Your task to perform on an android device: turn on improve location accuracy Image 0: 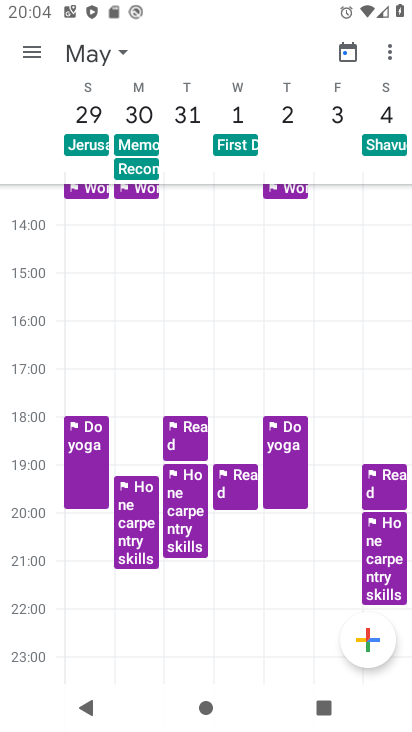
Step 0: press home button
Your task to perform on an android device: turn on improve location accuracy Image 1: 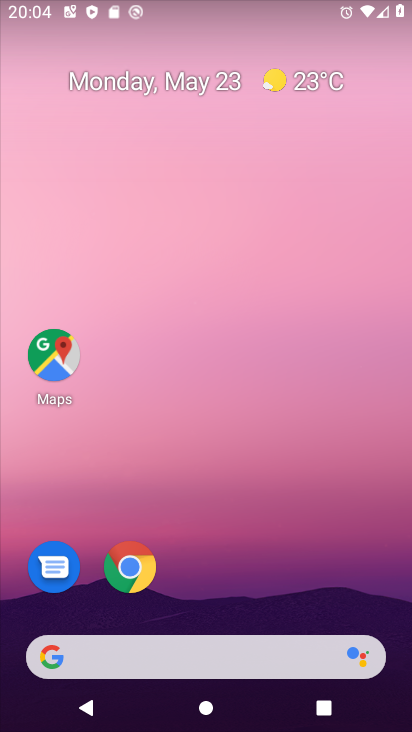
Step 1: drag from (270, 583) to (286, 261)
Your task to perform on an android device: turn on improve location accuracy Image 2: 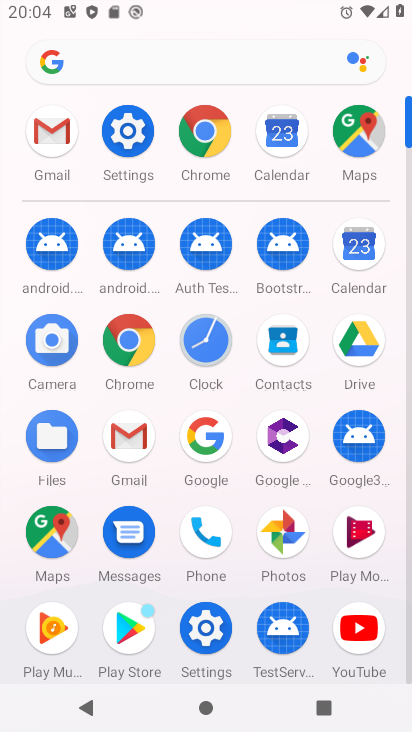
Step 2: click (127, 137)
Your task to perform on an android device: turn on improve location accuracy Image 3: 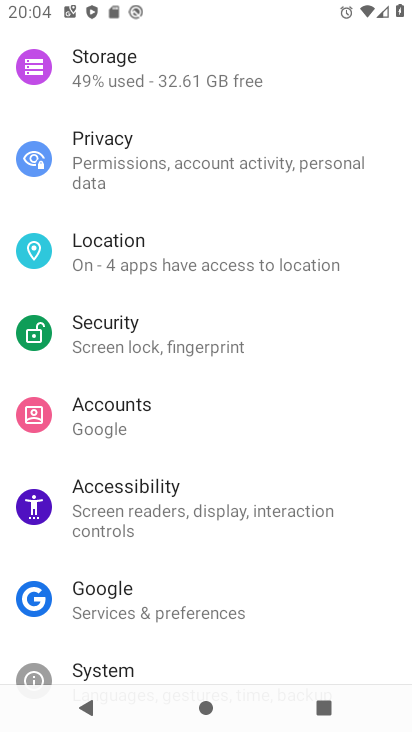
Step 3: drag from (190, 608) to (210, 490)
Your task to perform on an android device: turn on improve location accuracy Image 4: 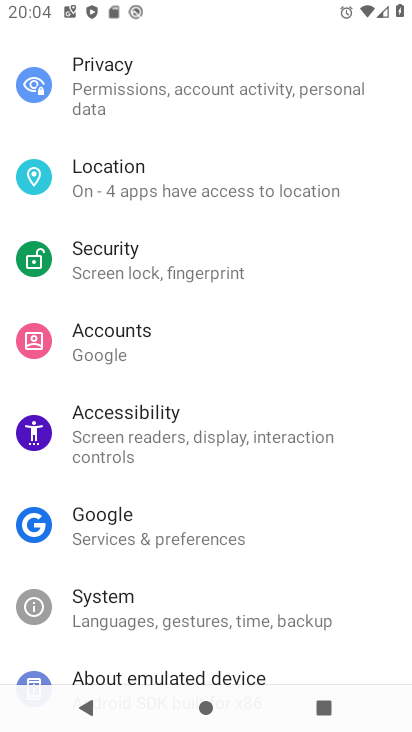
Step 4: click (181, 191)
Your task to perform on an android device: turn on improve location accuracy Image 5: 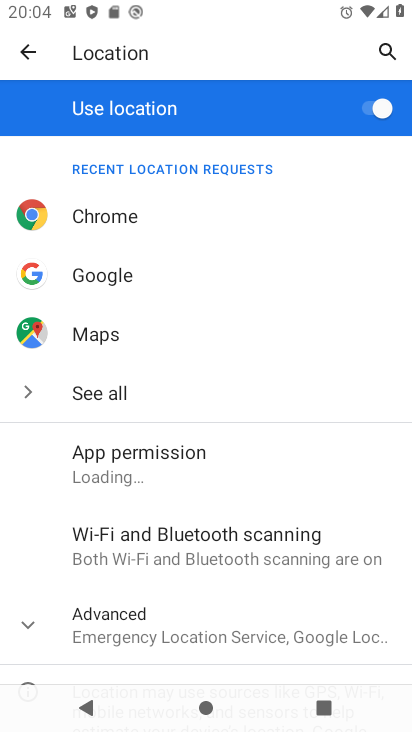
Step 5: click (167, 629)
Your task to perform on an android device: turn on improve location accuracy Image 6: 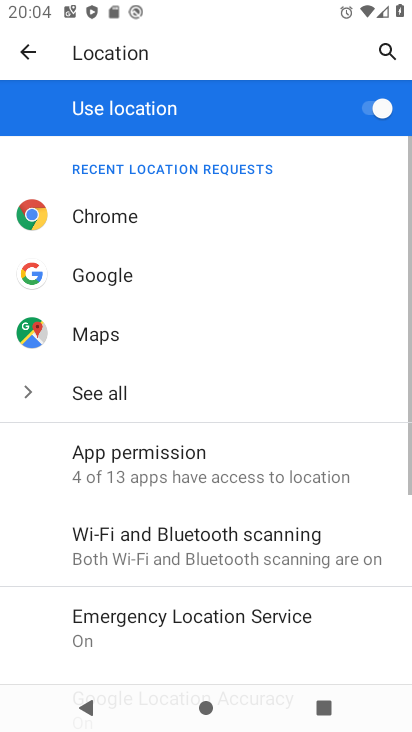
Step 6: drag from (183, 552) to (240, 220)
Your task to perform on an android device: turn on improve location accuracy Image 7: 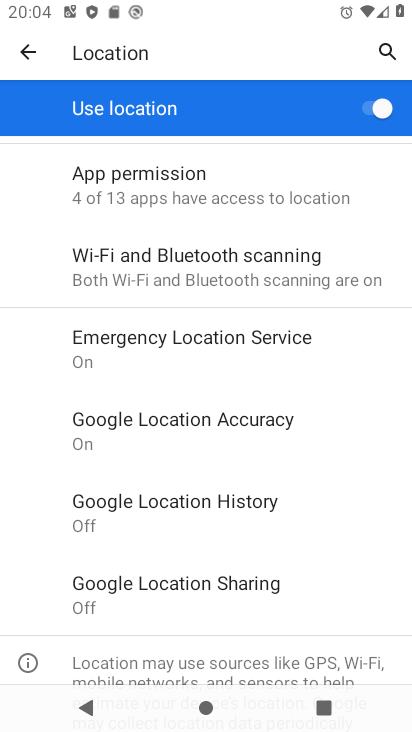
Step 7: click (157, 428)
Your task to perform on an android device: turn on improve location accuracy Image 8: 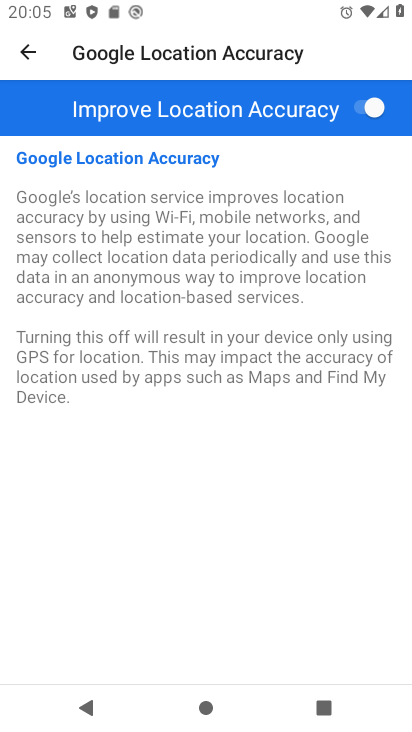
Step 8: task complete